Your task to perform on an android device: Go to Reddit.com Image 0: 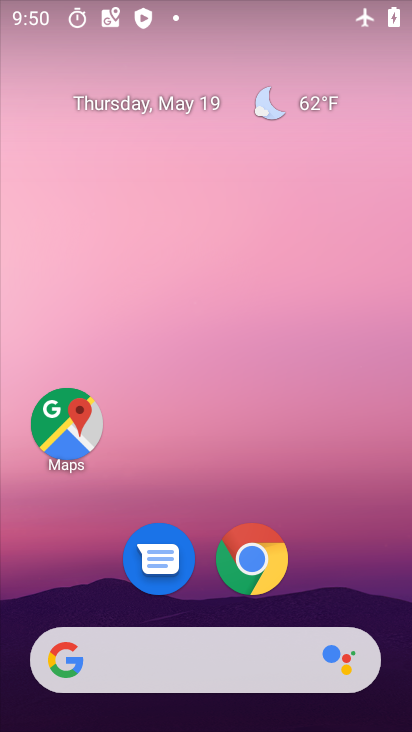
Step 0: click (246, 558)
Your task to perform on an android device: Go to Reddit.com Image 1: 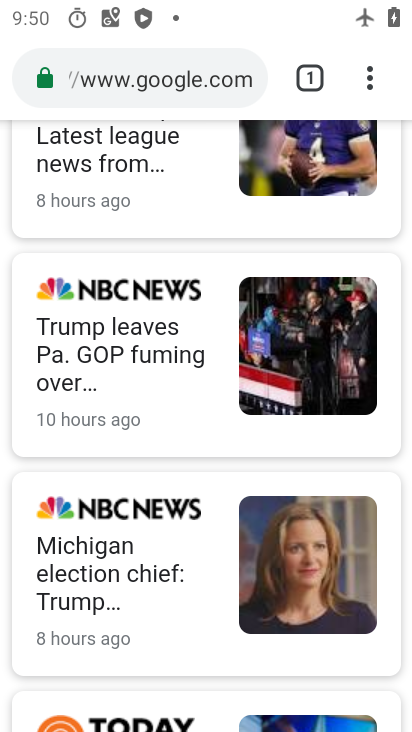
Step 1: click (137, 82)
Your task to perform on an android device: Go to Reddit.com Image 2: 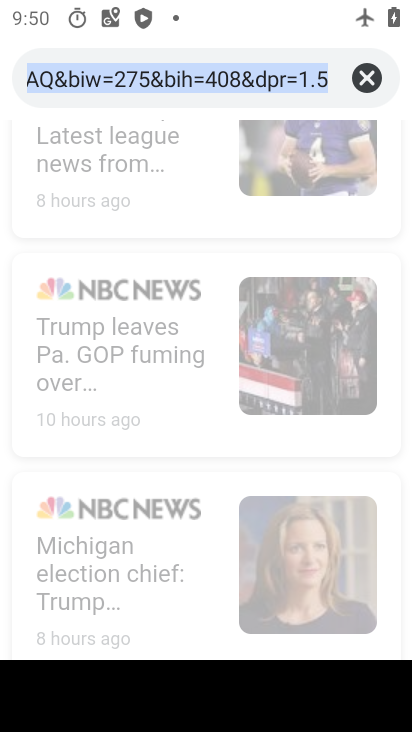
Step 2: type "reddit.com"
Your task to perform on an android device: Go to Reddit.com Image 3: 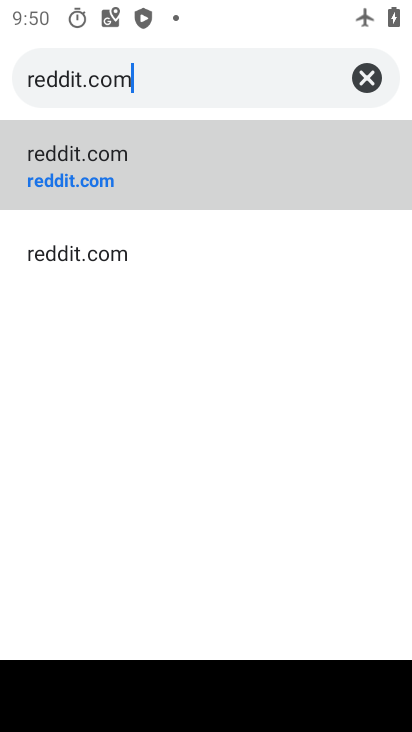
Step 3: click (78, 175)
Your task to perform on an android device: Go to Reddit.com Image 4: 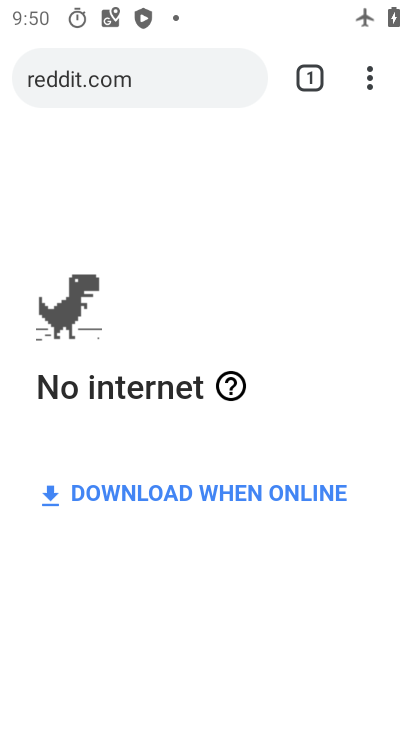
Step 4: task complete